Your task to perform on an android device: Go to Google Image 0: 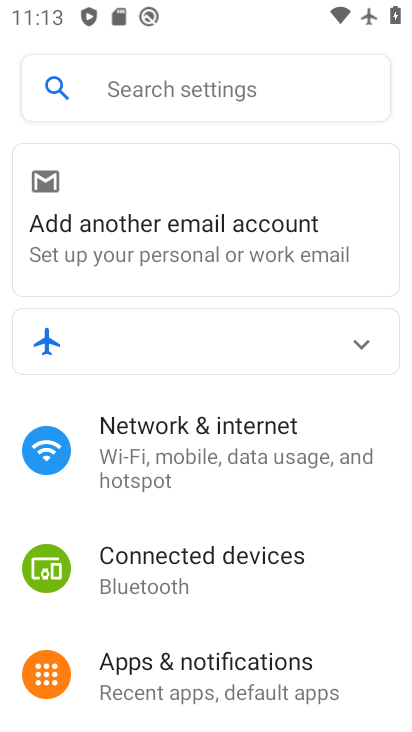
Step 0: press home button
Your task to perform on an android device: Go to Google Image 1: 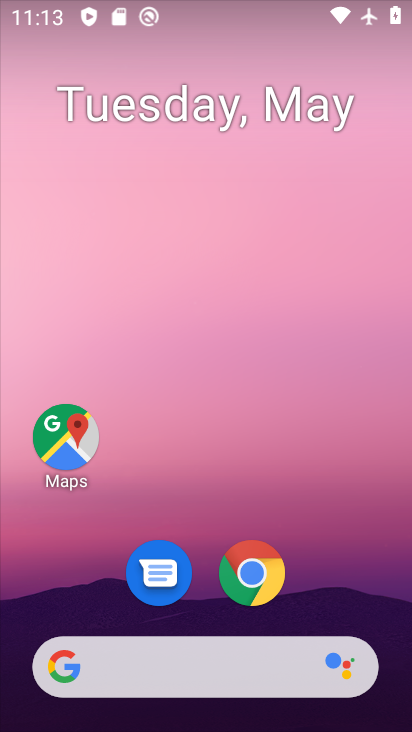
Step 1: click (151, 224)
Your task to perform on an android device: Go to Google Image 2: 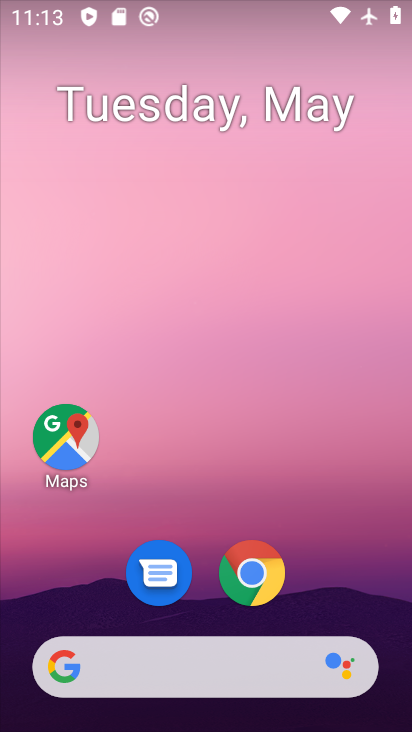
Step 2: drag from (165, 636) to (166, 255)
Your task to perform on an android device: Go to Google Image 3: 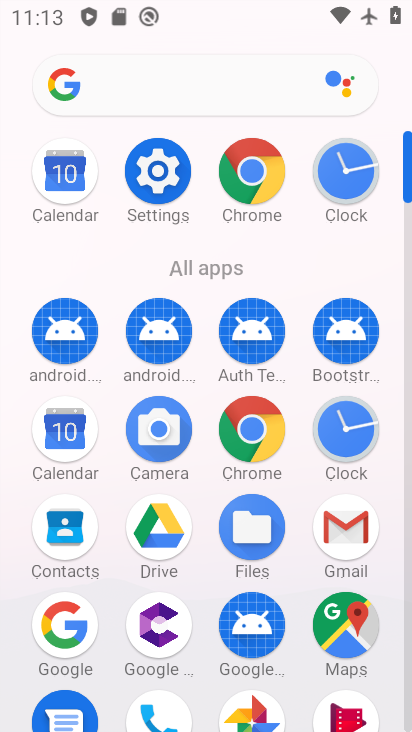
Step 3: click (75, 645)
Your task to perform on an android device: Go to Google Image 4: 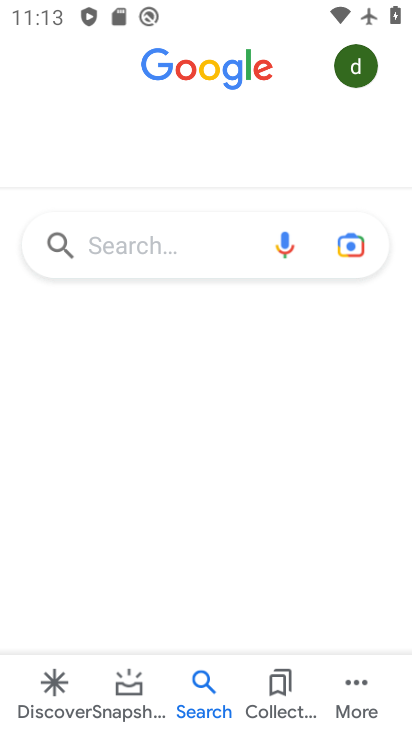
Step 4: task complete